Your task to perform on an android device: Go to notification settings Image 0: 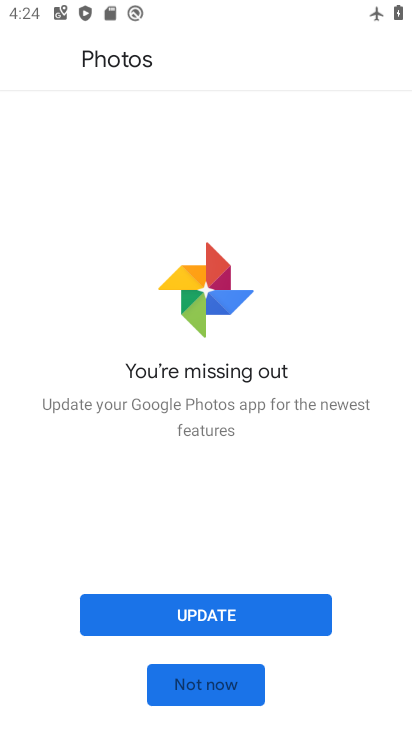
Step 0: press home button
Your task to perform on an android device: Go to notification settings Image 1: 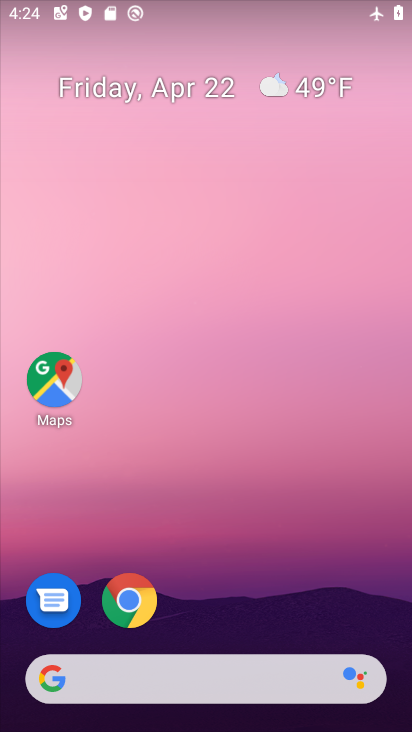
Step 1: drag from (236, 484) to (214, 2)
Your task to perform on an android device: Go to notification settings Image 2: 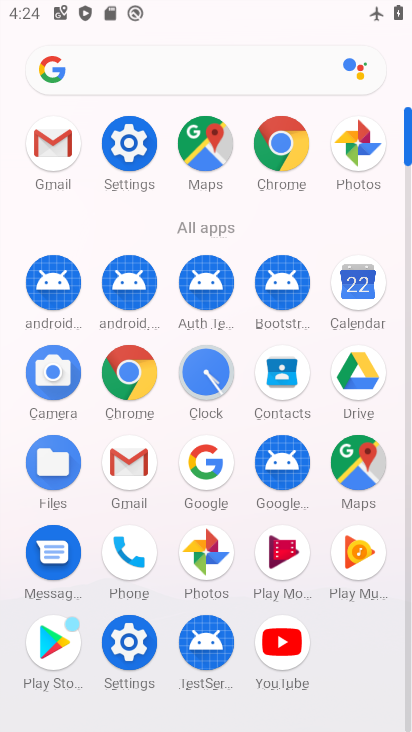
Step 2: click (130, 144)
Your task to perform on an android device: Go to notification settings Image 3: 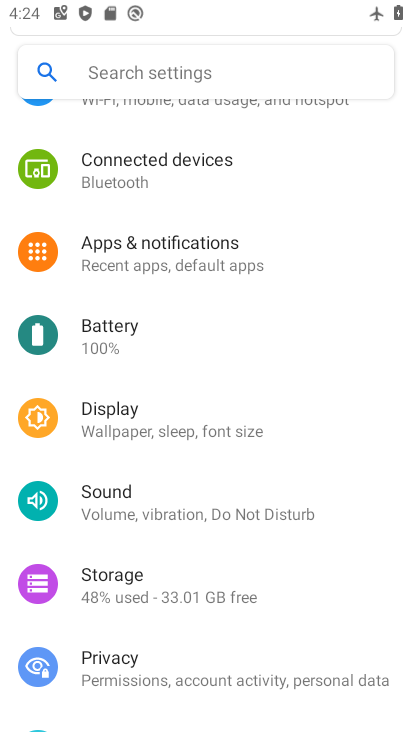
Step 3: click (158, 242)
Your task to perform on an android device: Go to notification settings Image 4: 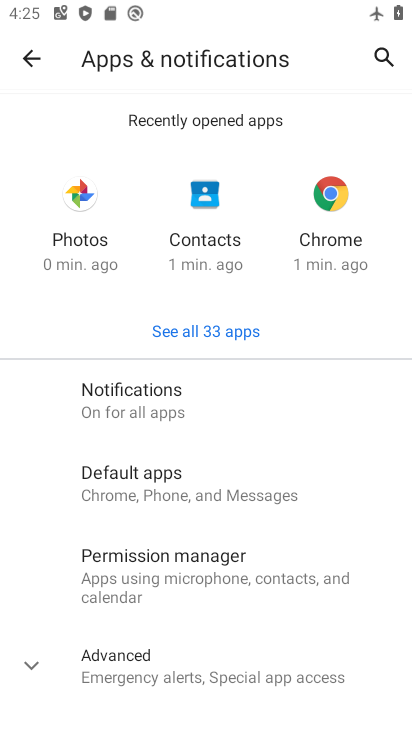
Step 4: click (132, 391)
Your task to perform on an android device: Go to notification settings Image 5: 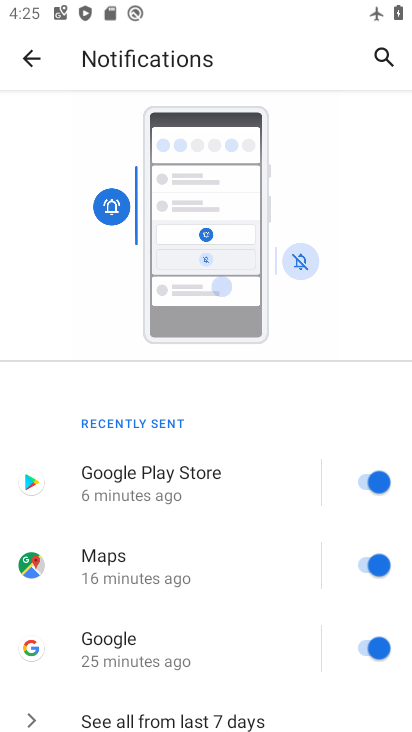
Step 5: task complete